Your task to perform on an android device: Go to sound settings Image 0: 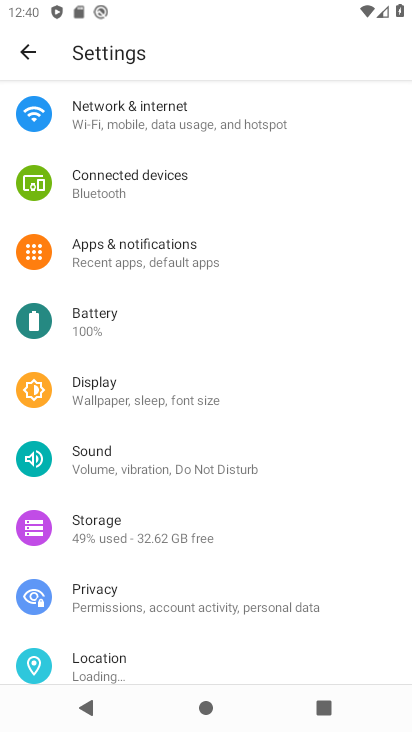
Step 0: click (211, 469)
Your task to perform on an android device: Go to sound settings Image 1: 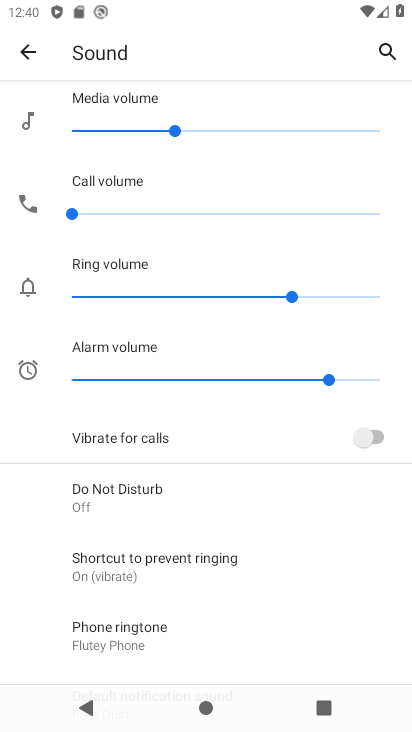
Step 1: task complete